Your task to perform on an android device: toggle show notifications on the lock screen Image 0: 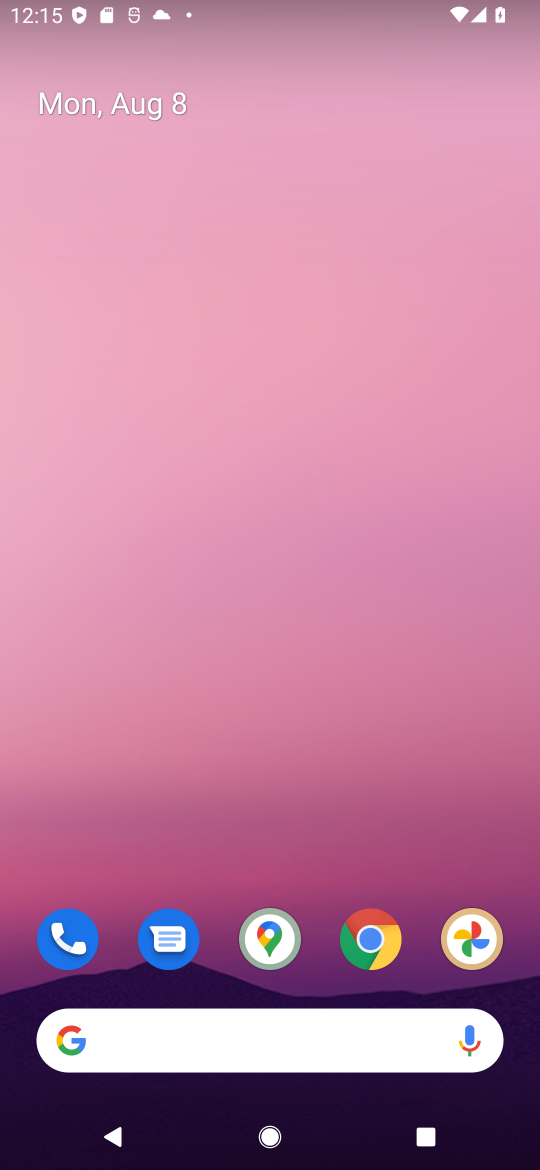
Step 0: drag from (204, 1030) to (342, 163)
Your task to perform on an android device: toggle show notifications on the lock screen Image 1: 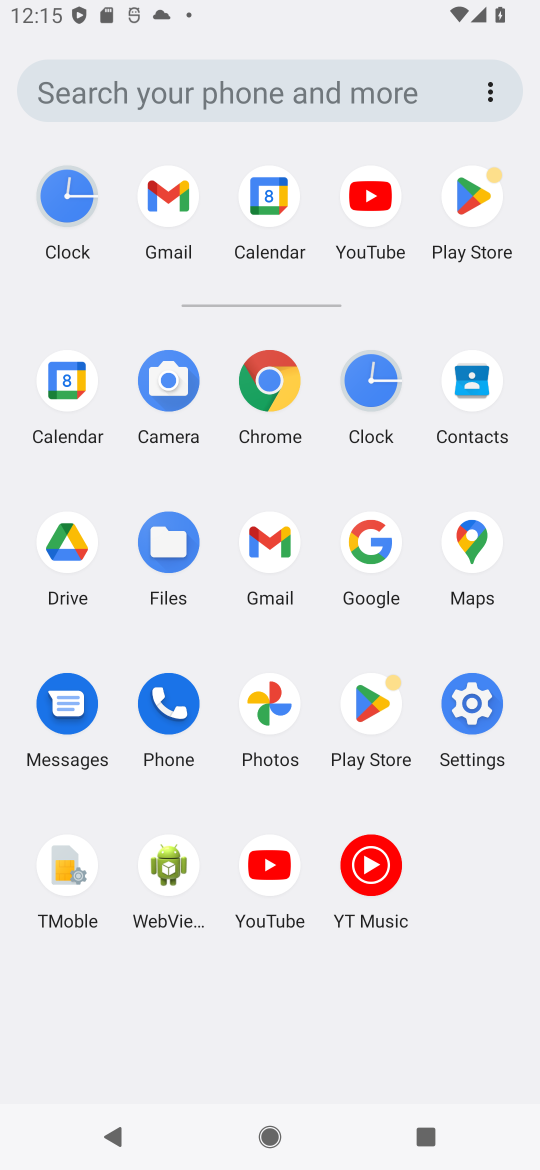
Step 1: click (471, 703)
Your task to perform on an android device: toggle show notifications on the lock screen Image 2: 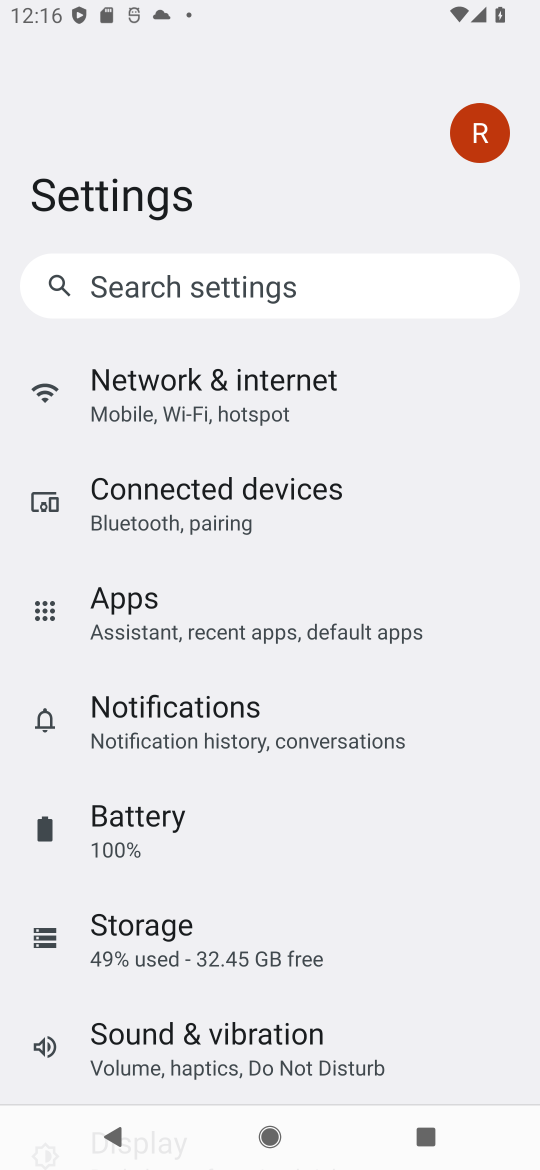
Step 2: drag from (194, 985) to (244, 794)
Your task to perform on an android device: toggle show notifications on the lock screen Image 3: 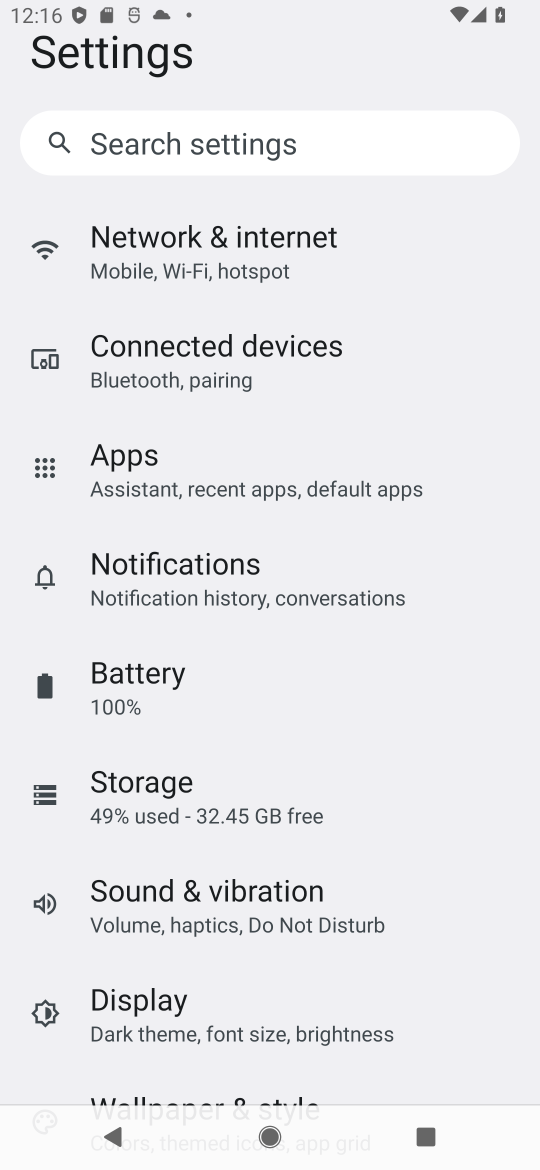
Step 3: click (247, 589)
Your task to perform on an android device: toggle show notifications on the lock screen Image 4: 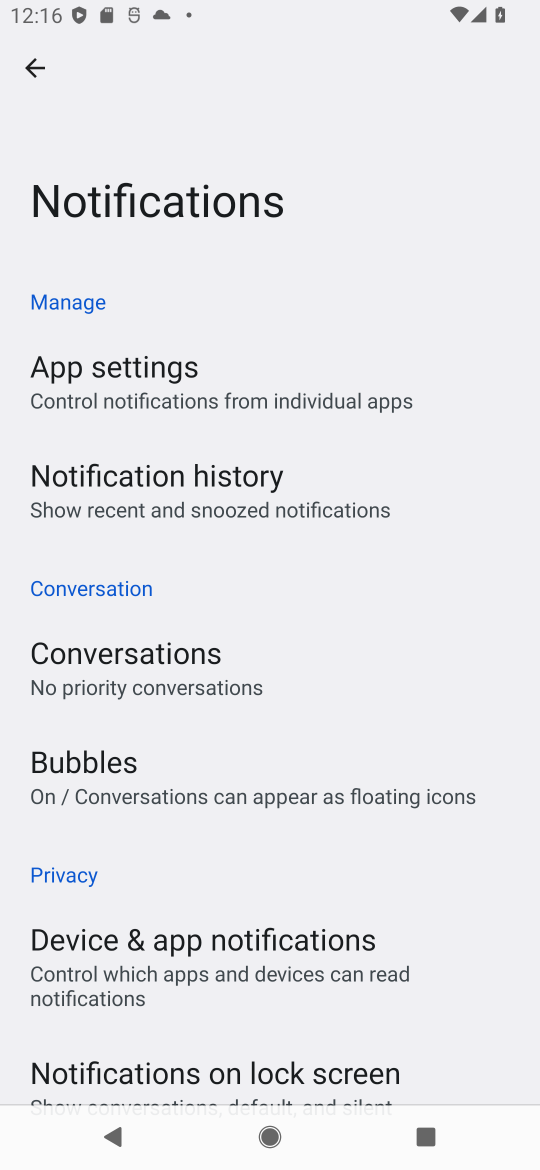
Step 4: drag from (189, 731) to (281, 586)
Your task to perform on an android device: toggle show notifications on the lock screen Image 5: 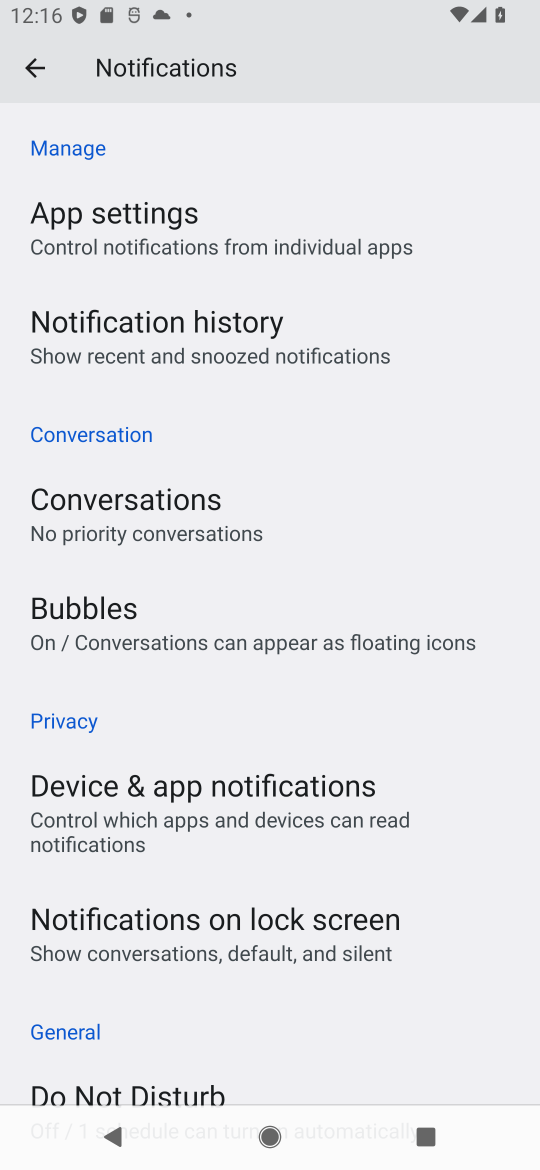
Step 5: drag from (185, 705) to (295, 558)
Your task to perform on an android device: toggle show notifications on the lock screen Image 6: 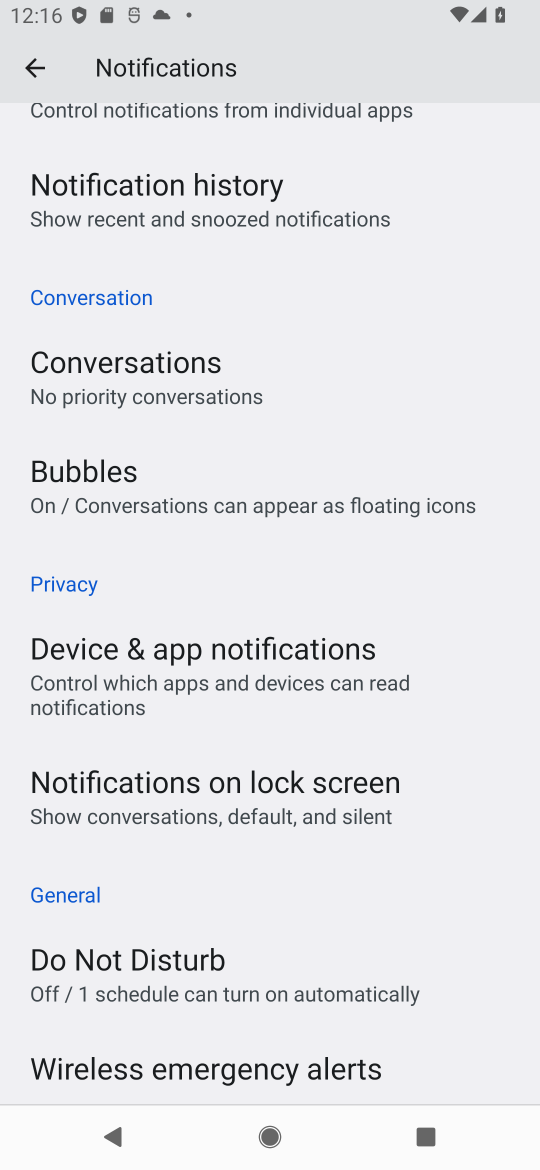
Step 6: drag from (187, 731) to (296, 580)
Your task to perform on an android device: toggle show notifications on the lock screen Image 7: 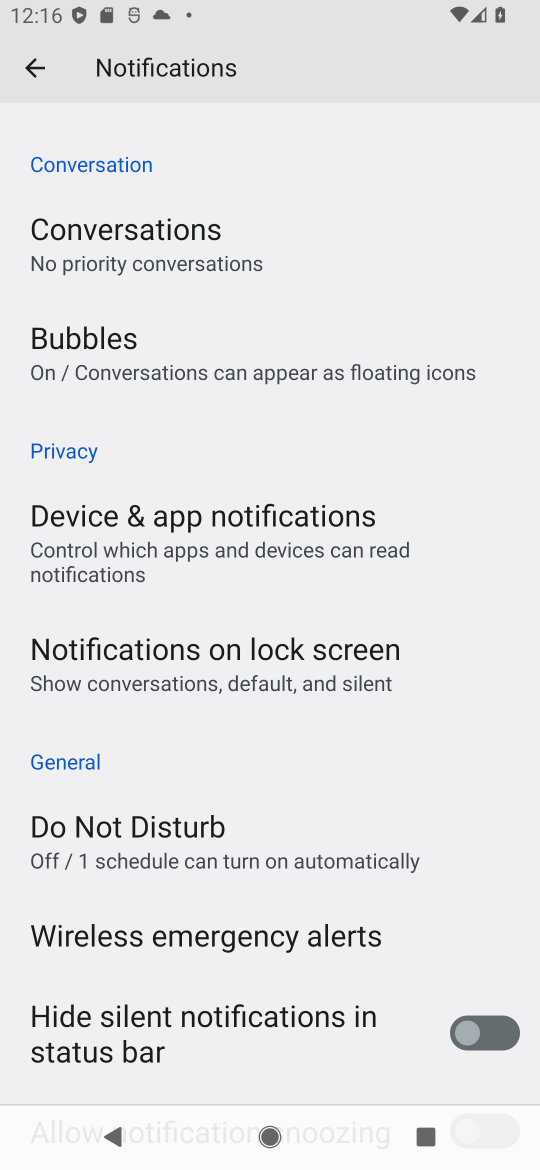
Step 7: click (226, 675)
Your task to perform on an android device: toggle show notifications on the lock screen Image 8: 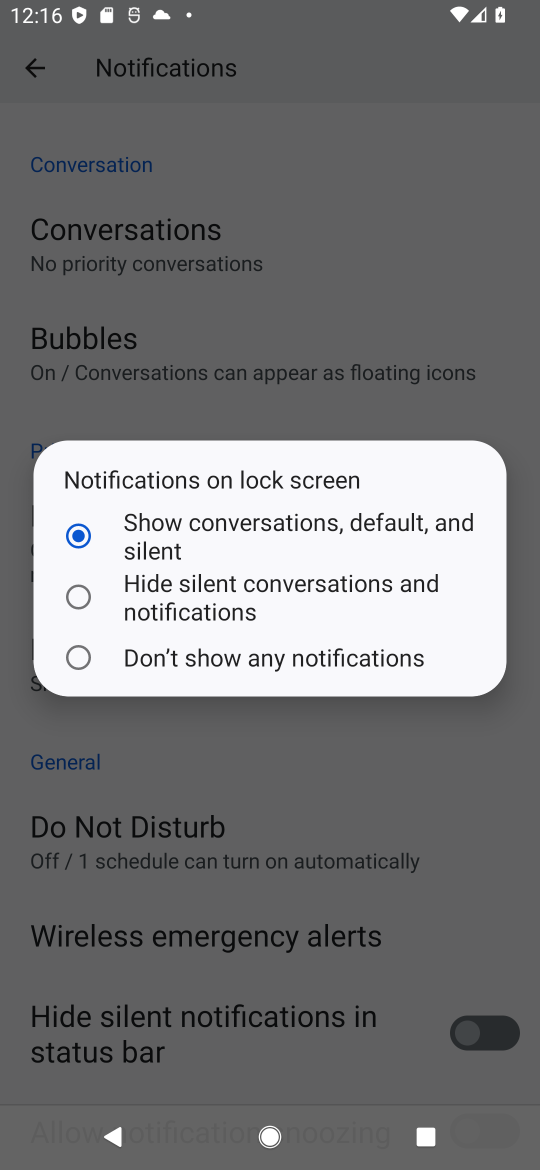
Step 8: click (83, 654)
Your task to perform on an android device: toggle show notifications on the lock screen Image 9: 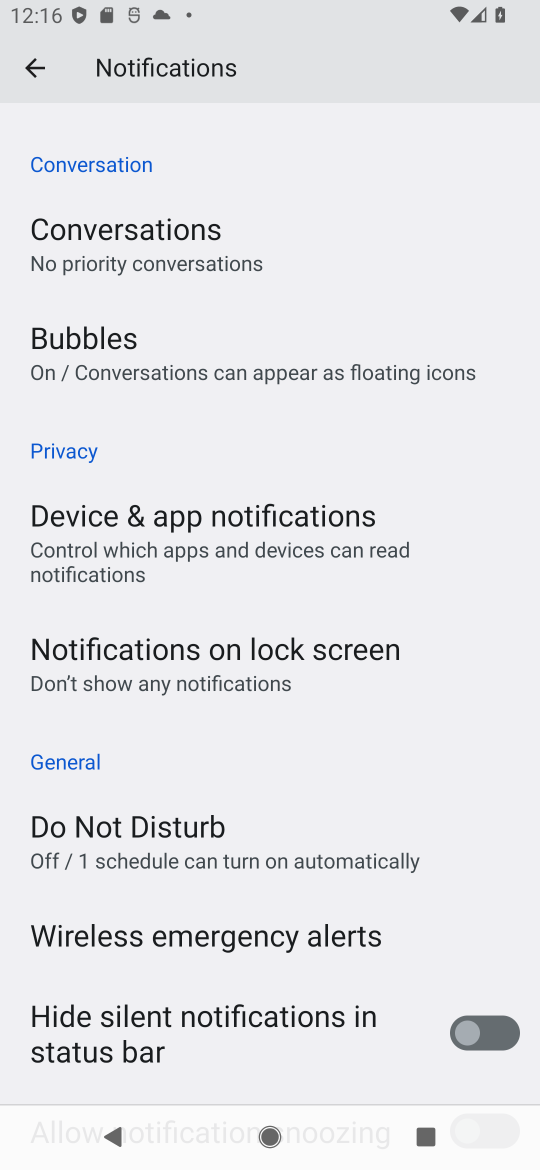
Step 9: task complete